Your task to perform on an android device: change the clock style Image 0: 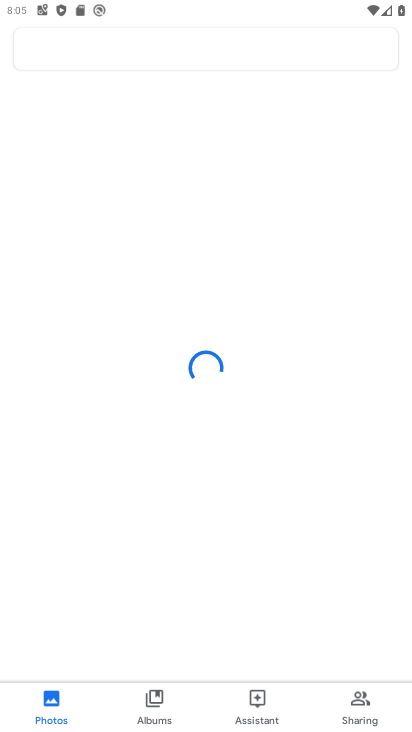
Step 0: click (402, 445)
Your task to perform on an android device: change the clock style Image 1: 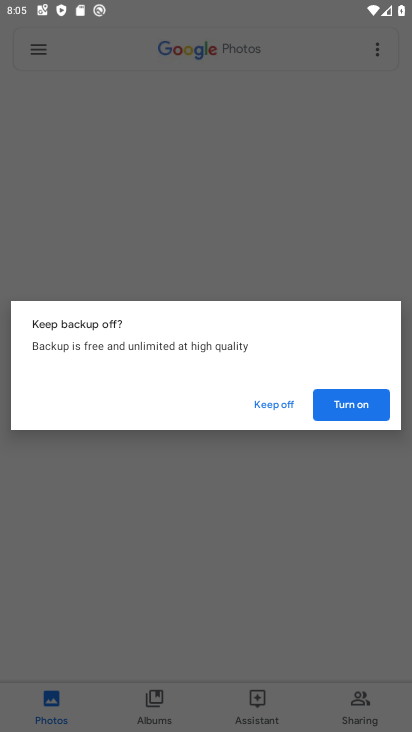
Step 1: press home button
Your task to perform on an android device: change the clock style Image 2: 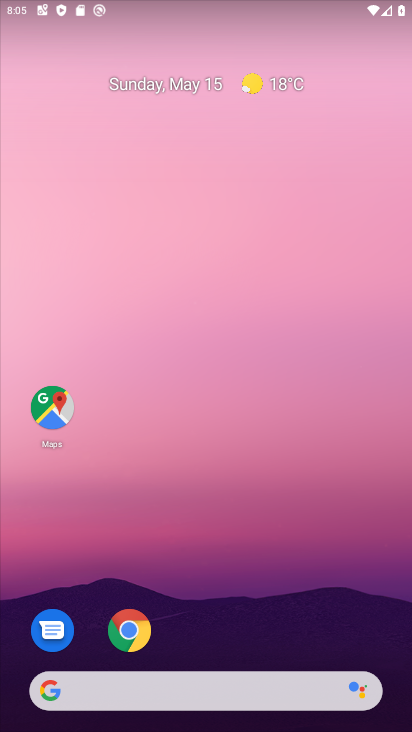
Step 2: click (242, 227)
Your task to perform on an android device: change the clock style Image 3: 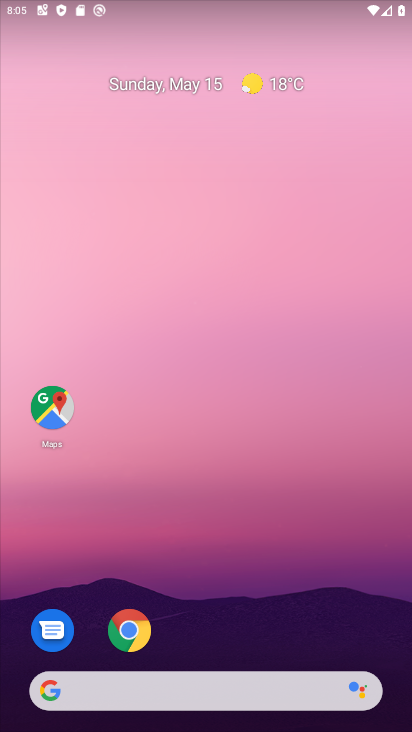
Step 3: drag from (177, 632) to (233, 336)
Your task to perform on an android device: change the clock style Image 4: 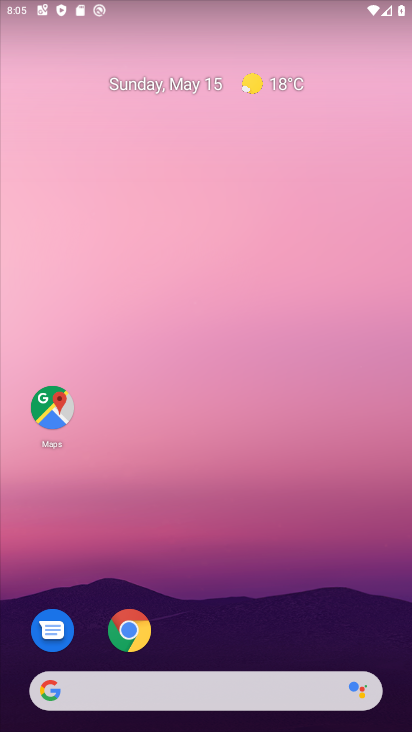
Step 4: drag from (202, 652) to (156, 138)
Your task to perform on an android device: change the clock style Image 5: 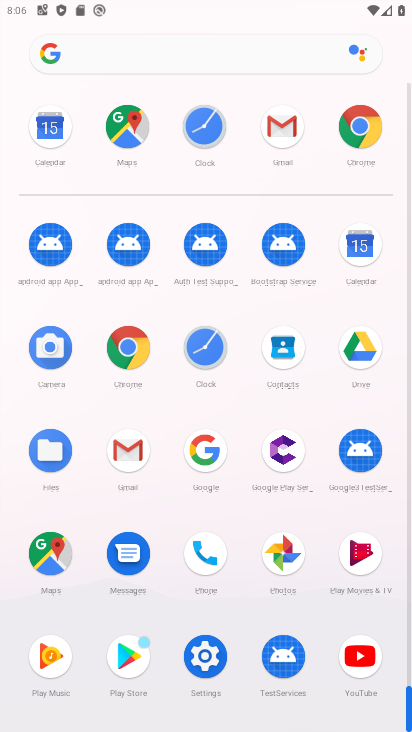
Step 5: click (201, 344)
Your task to perform on an android device: change the clock style Image 6: 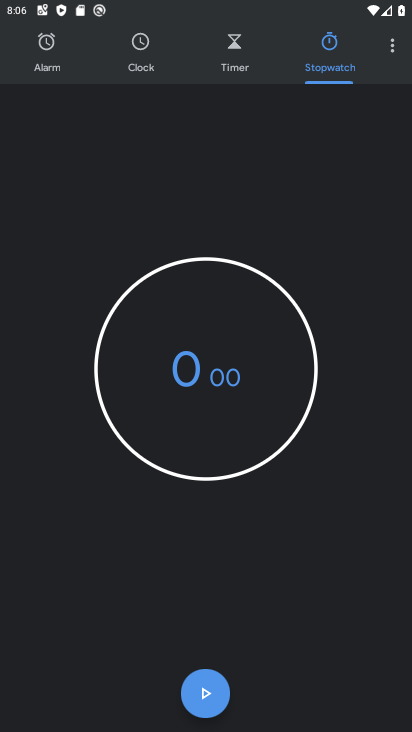
Step 6: click (377, 46)
Your task to perform on an android device: change the clock style Image 7: 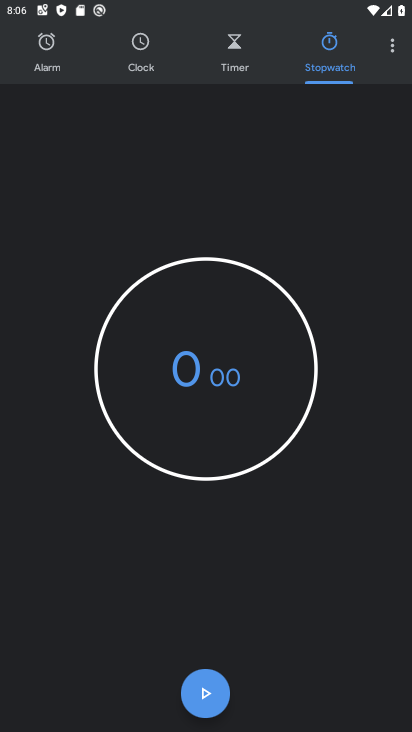
Step 7: click (397, 49)
Your task to perform on an android device: change the clock style Image 8: 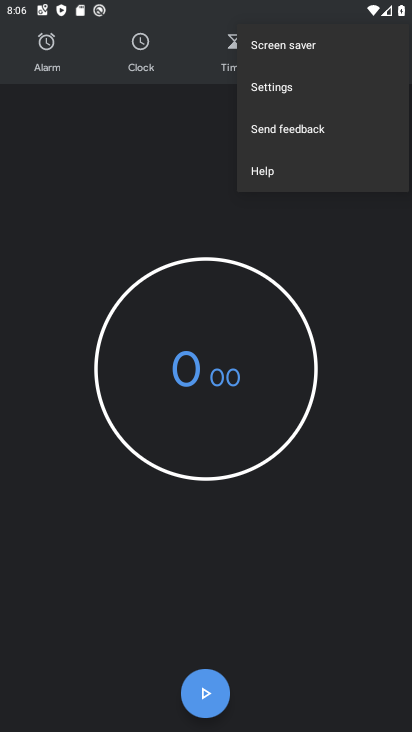
Step 8: click (270, 89)
Your task to perform on an android device: change the clock style Image 9: 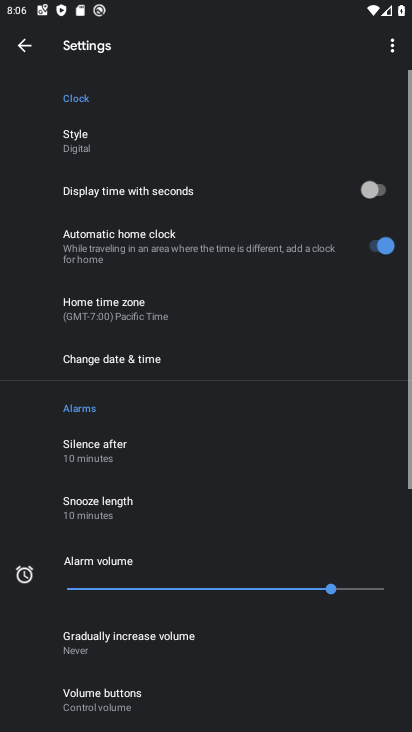
Step 9: click (116, 152)
Your task to perform on an android device: change the clock style Image 10: 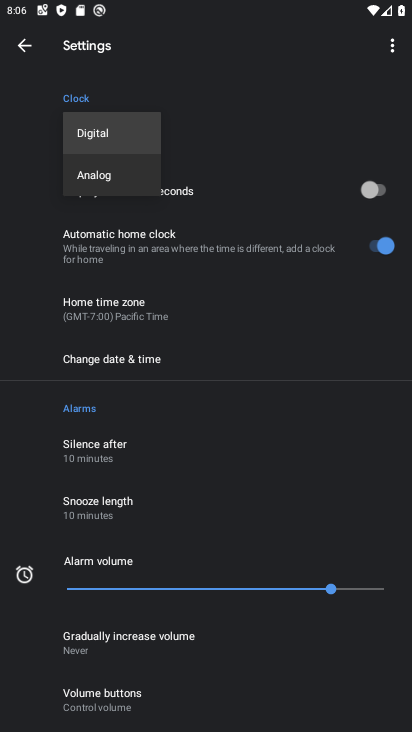
Step 10: click (107, 174)
Your task to perform on an android device: change the clock style Image 11: 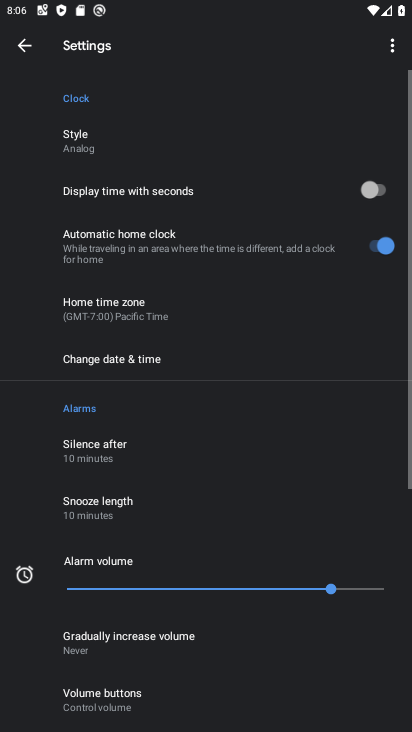
Step 11: task complete